Your task to perform on an android device: remove spam from my inbox in the gmail app Image 0: 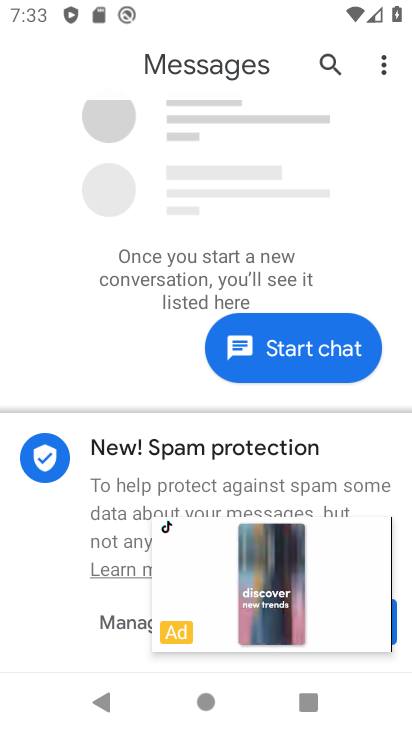
Step 0: press home button
Your task to perform on an android device: remove spam from my inbox in the gmail app Image 1: 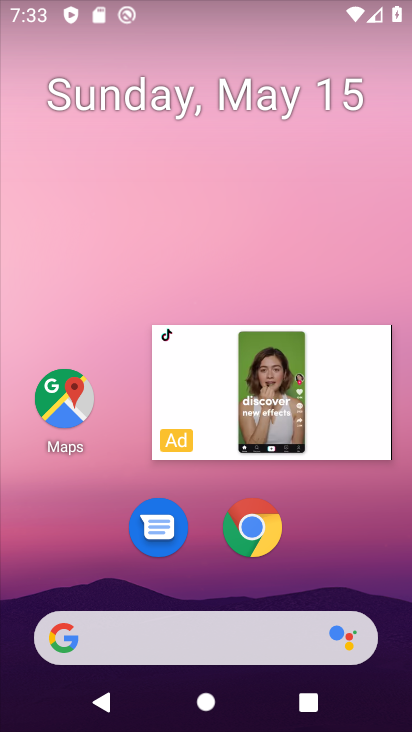
Step 1: click (294, 367)
Your task to perform on an android device: remove spam from my inbox in the gmail app Image 2: 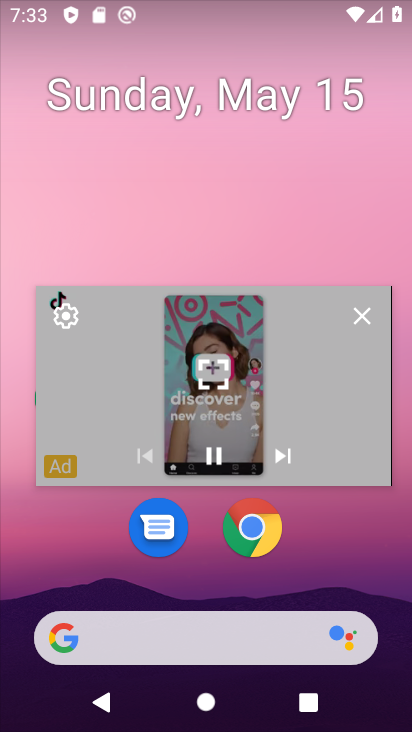
Step 2: click (361, 311)
Your task to perform on an android device: remove spam from my inbox in the gmail app Image 3: 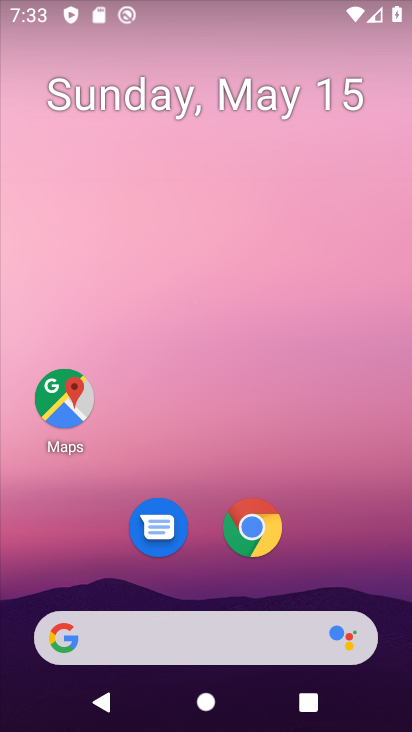
Step 3: drag from (201, 580) to (259, 64)
Your task to perform on an android device: remove spam from my inbox in the gmail app Image 4: 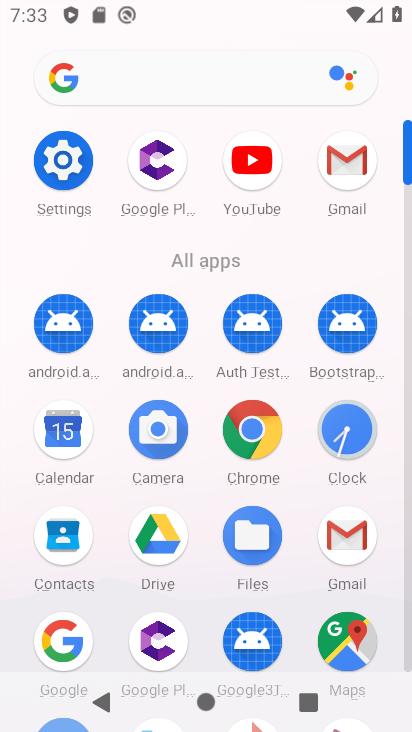
Step 4: click (354, 552)
Your task to perform on an android device: remove spam from my inbox in the gmail app Image 5: 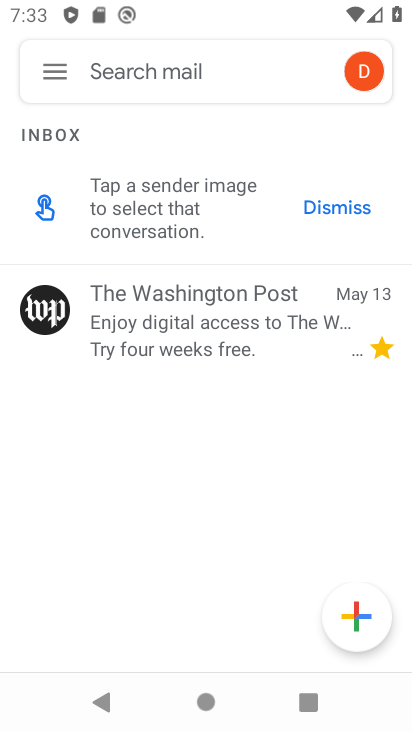
Step 5: click (63, 76)
Your task to perform on an android device: remove spam from my inbox in the gmail app Image 6: 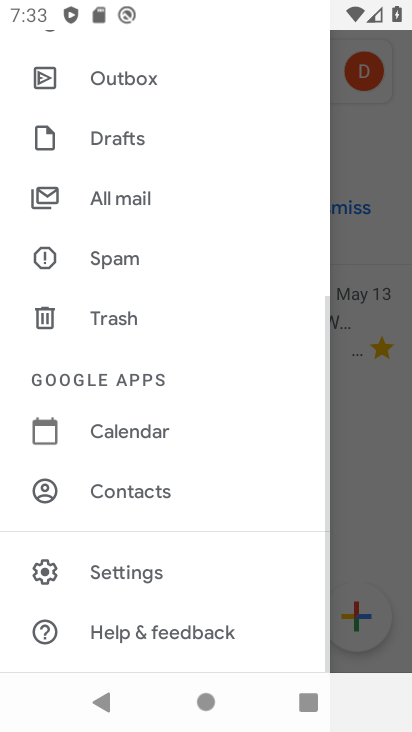
Step 6: click (134, 258)
Your task to perform on an android device: remove spam from my inbox in the gmail app Image 7: 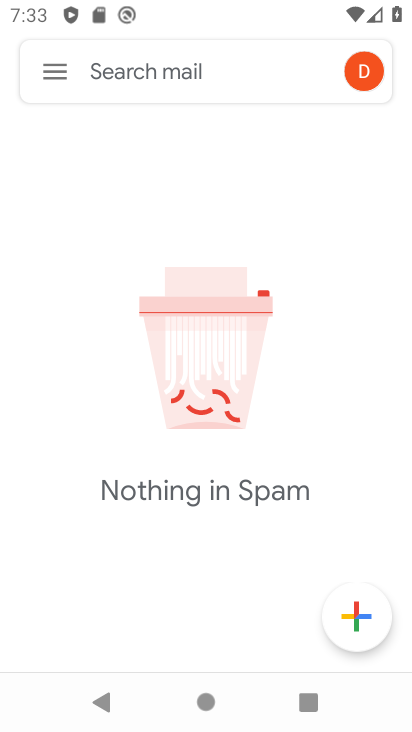
Step 7: task complete